Your task to perform on an android device: open chrome privacy settings Image 0: 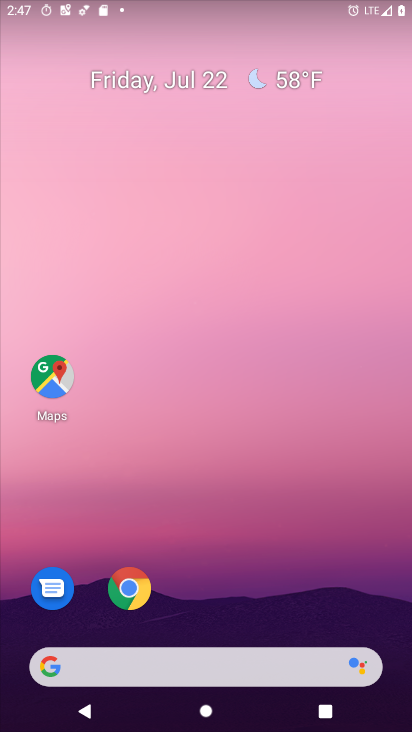
Step 0: drag from (269, 594) to (316, 19)
Your task to perform on an android device: open chrome privacy settings Image 1: 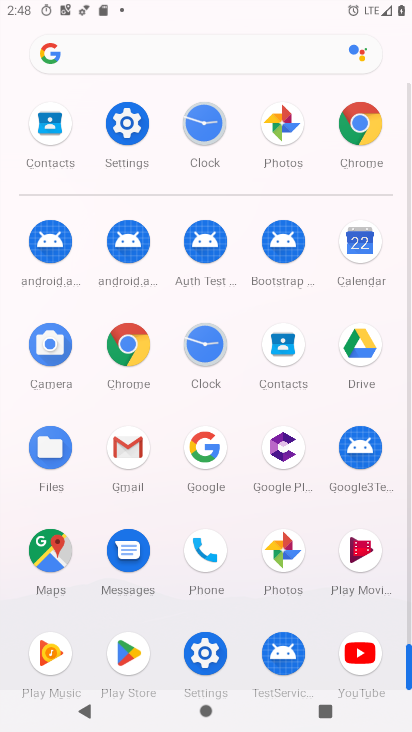
Step 1: click (130, 341)
Your task to perform on an android device: open chrome privacy settings Image 2: 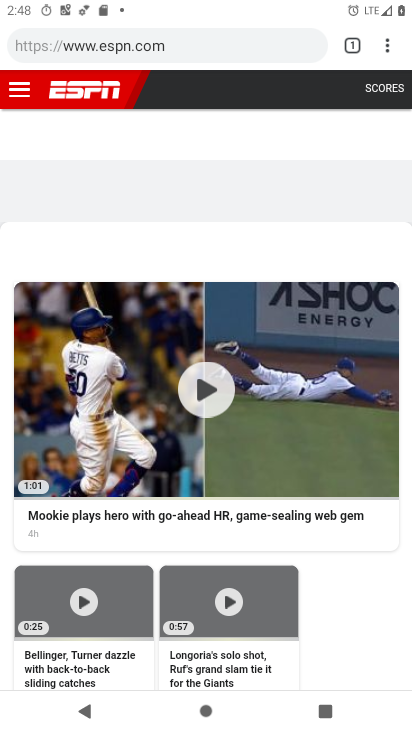
Step 2: drag from (380, 39) to (197, 548)
Your task to perform on an android device: open chrome privacy settings Image 3: 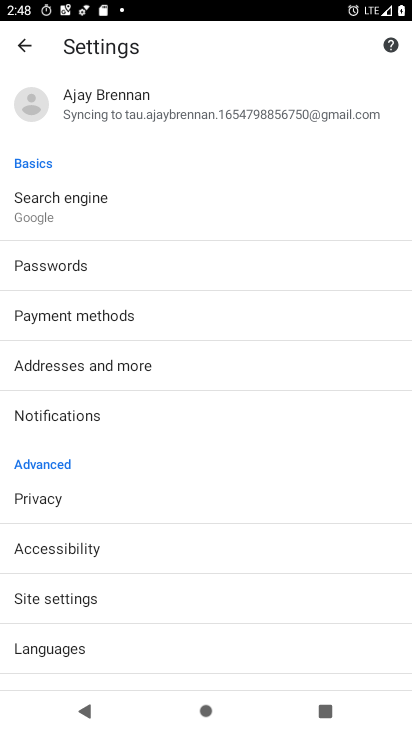
Step 3: drag from (178, 593) to (114, 301)
Your task to perform on an android device: open chrome privacy settings Image 4: 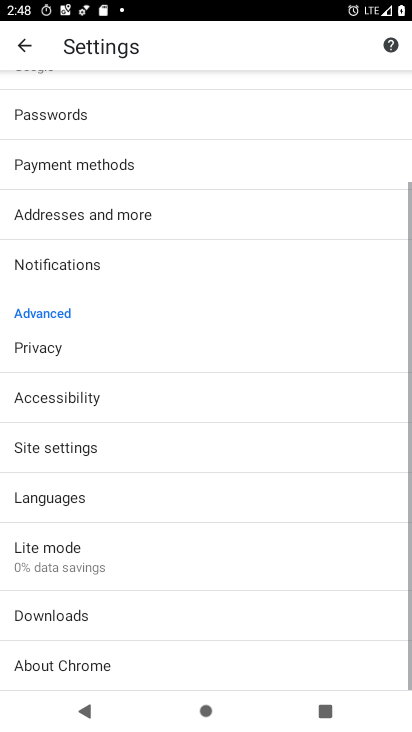
Step 4: click (54, 353)
Your task to perform on an android device: open chrome privacy settings Image 5: 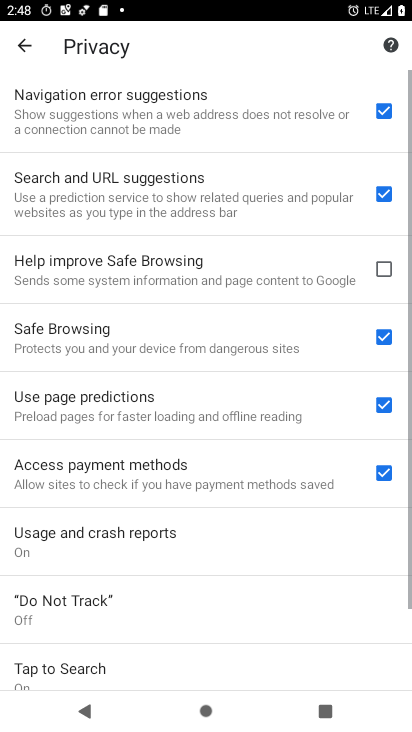
Step 5: task complete